Your task to perform on an android device: Add "razer blade" to the cart on target.com Image 0: 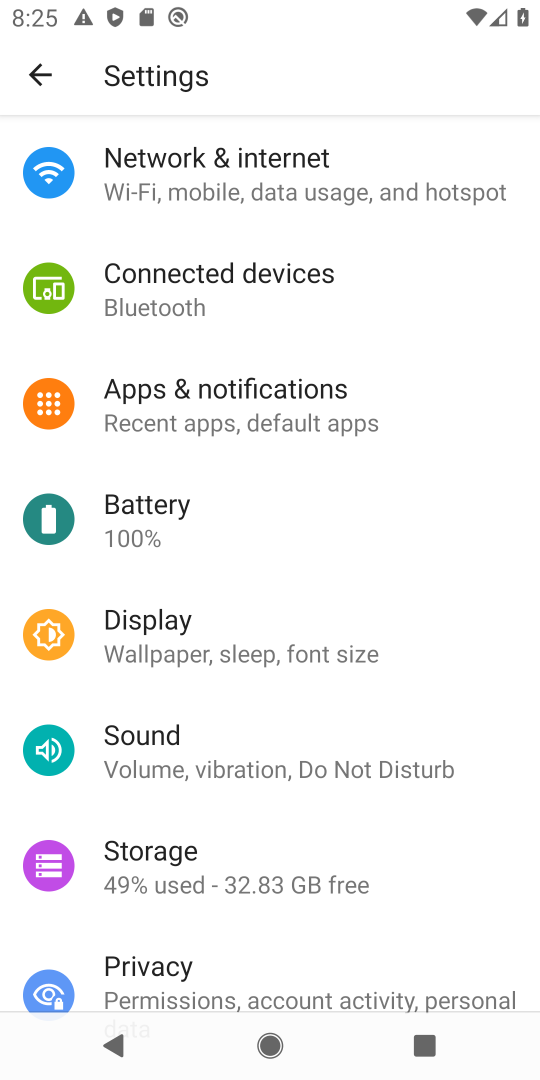
Step 0: task complete